Your task to perform on an android device: turn on the 12-hour format for clock Image 0: 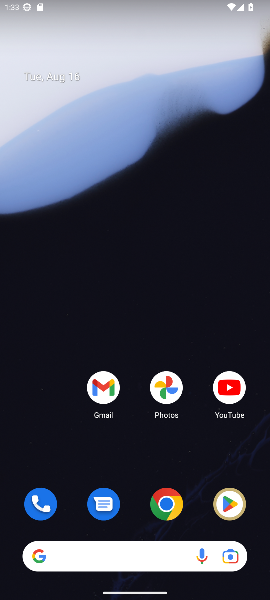
Step 0: drag from (133, 530) to (102, 66)
Your task to perform on an android device: turn on the 12-hour format for clock Image 1: 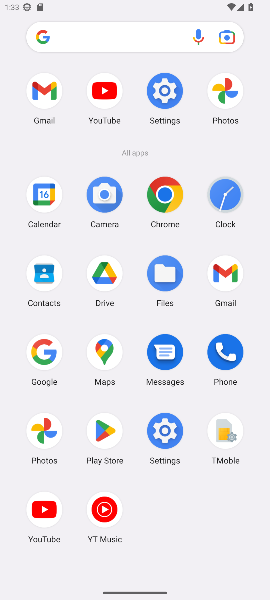
Step 1: click (226, 196)
Your task to perform on an android device: turn on the 12-hour format for clock Image 2: 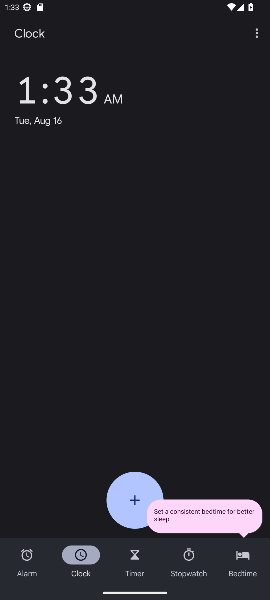
Step 2: click (258, 34)
Your task to perform on an android device: turn on the 12-hour format for clock Image 3: 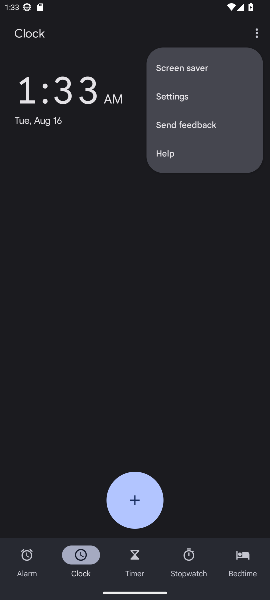
Step 3: click (181, 91)
Your task to perform on an android device: turn on the 12-hour format for clock Image 4: 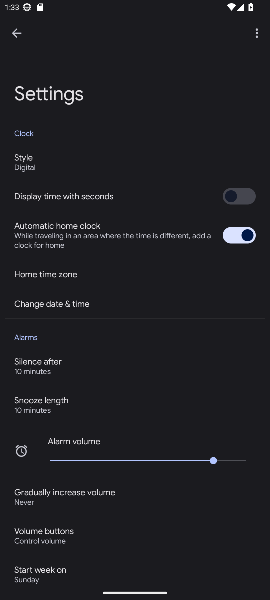
Step 4: click (60, 304)
Your task to perform on an android device: turn on the 12-hour format for clock Image 5: 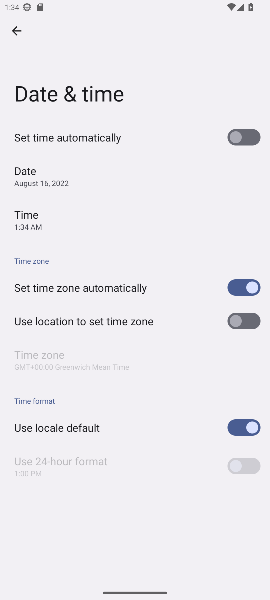
Step 5: task complete